Your task to perform on an android device: Open Maps and search for coffee Image 0: 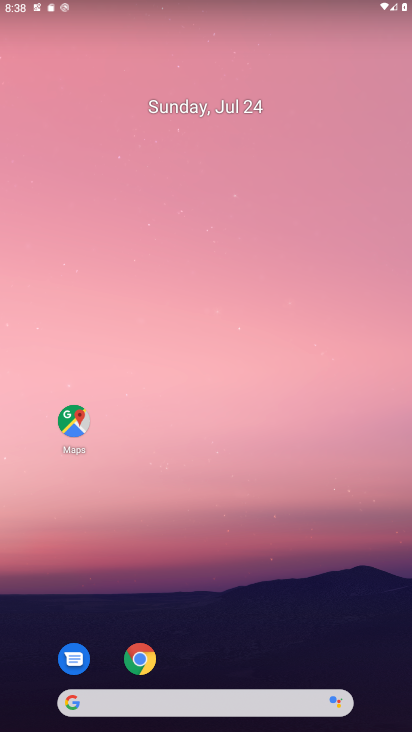
Step 0: drag from (204, 717) to (228, 207)
Your task to perform on an android device: Open Maps and search for coffee Image 1: 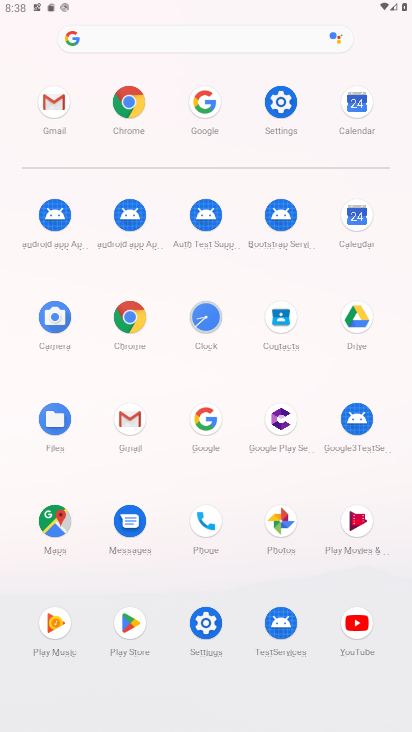
Step 1: click (56, 516)
Your task to perform on an android device: Open Maps and search for coffee Image 2: 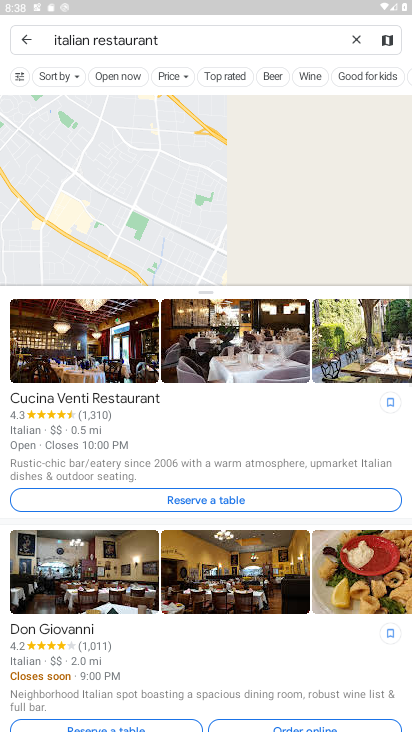
Step 2: click (354, 39)
Your task to perform on an android device: Open Maps and search for coffee Image 3: 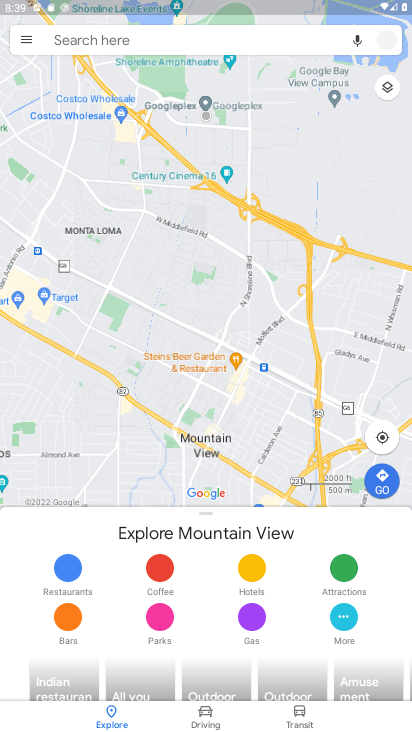
Step 3: click (130, 36)
Your task to perform on an android device: Open Maps and search for coffee Image 4: 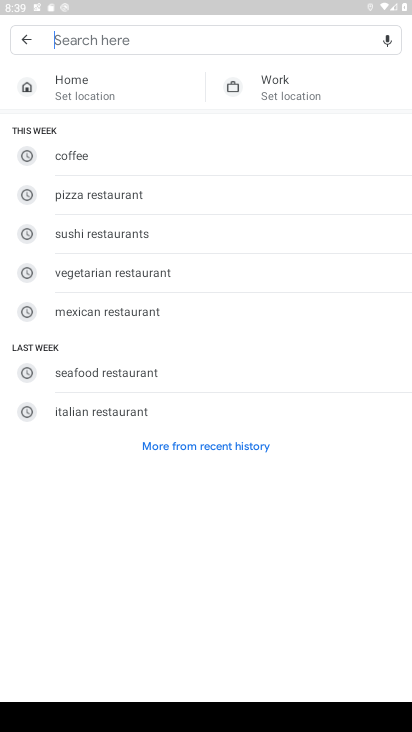
Step 4: type "coffee"
Your task to perform on an android device: Open Maps and search for coffee Image 5: 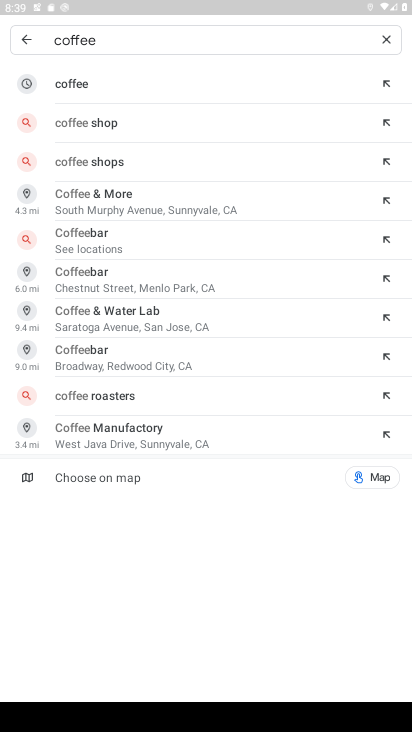
Step 5: click (74, 83)
Your task to perform on an android device: Open Maps and search for coffee Image 6: 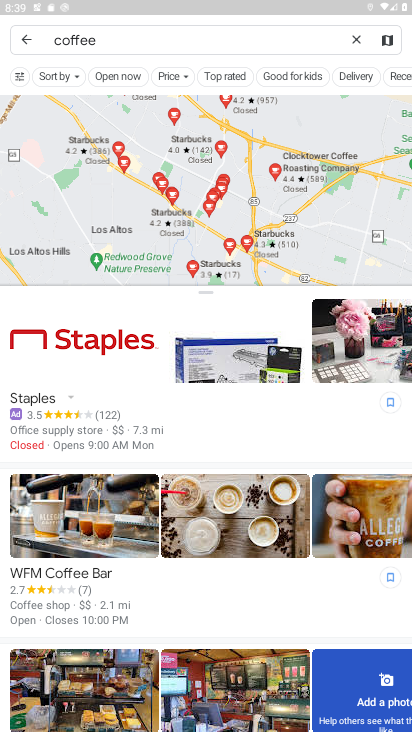
Step 6: task complete